Your task to perform on an android device: turn off wifi Image 0: 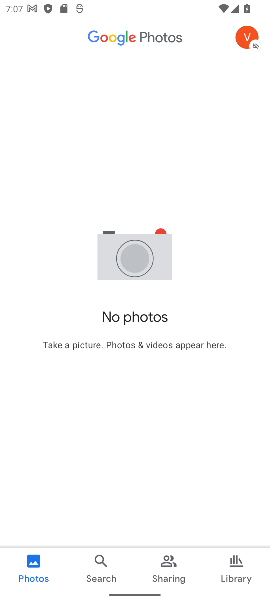
Step 0: drag from (201, 3) to (199, 498)
Your task to perform on an android device: turn off wifi Image 1: 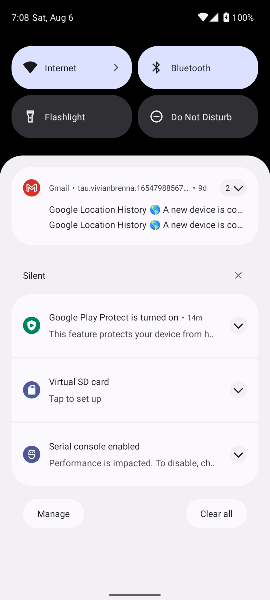
Step 1: click (48, 68)
Your task to perform on an android device: turn off wifi Image 2: 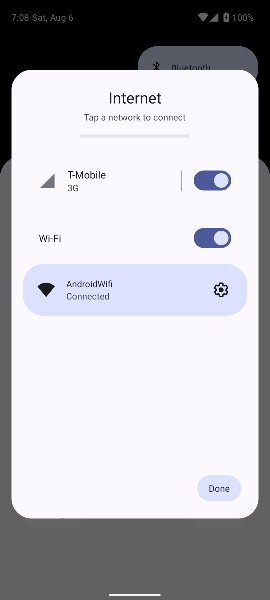
Step 2: click (215, 293)
Your task to perform on an android device: turn off wifi Image 3: 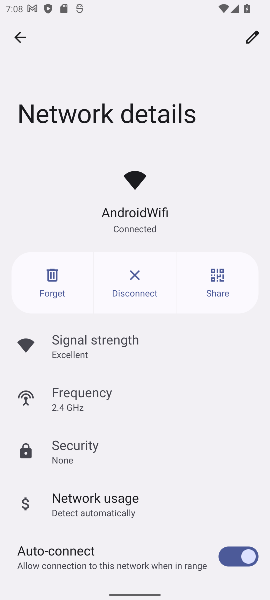
Step 3: click (139, 280)
Your task to perform on an android device: turn off wifi Image 4: 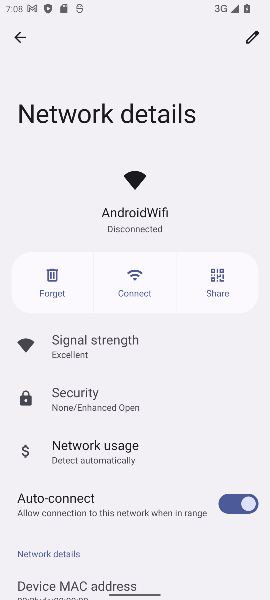
Step 4: drag from (180, 1) to (197, 594)
Your task to perform on an android device: turn off wifi Image 5: 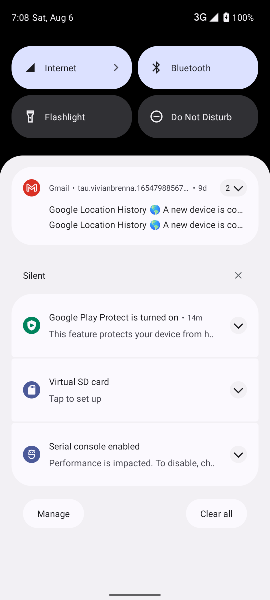
Step 5: drag from (127, 169) to (224, 599)
Your task to perform on an android device: turn off wifi Image 6: 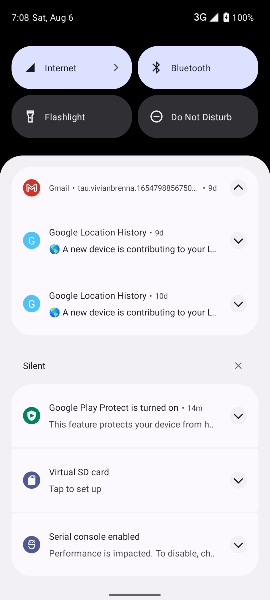
Step 6: drag from (139, 99) to (267, 575)
Your task to perform on an android device: turn off wifi Image 7: 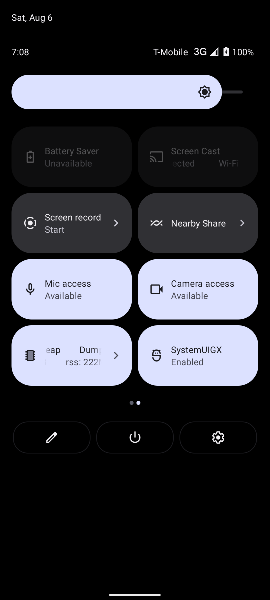
Step 7: click (218, 442)
Your task to perform on an android device: turn off wifi Image 8: 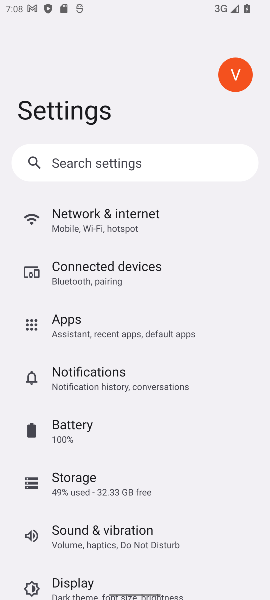
Step 8: click (109, 221)
Your task to perform on an android device: turn off wifi Image 9: 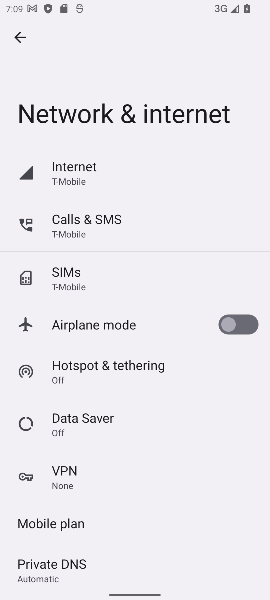
Step 9: task complete